Your task to perform on an android device: set an alarm Image 0: 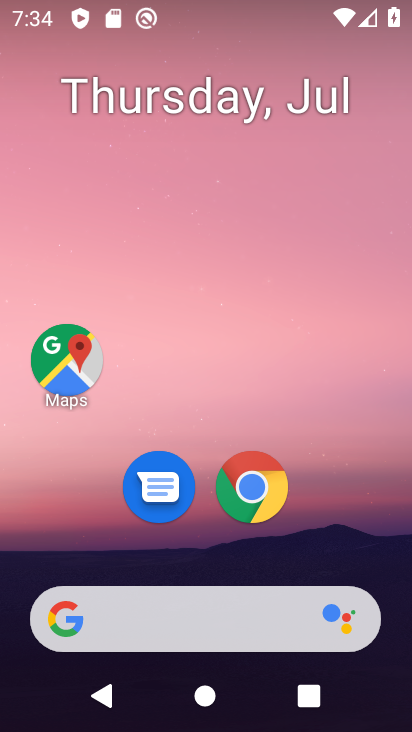
Step 0: drag from (341, 561) to (343, 234)
Your task to perform on an android device: set an alarm Image 1: 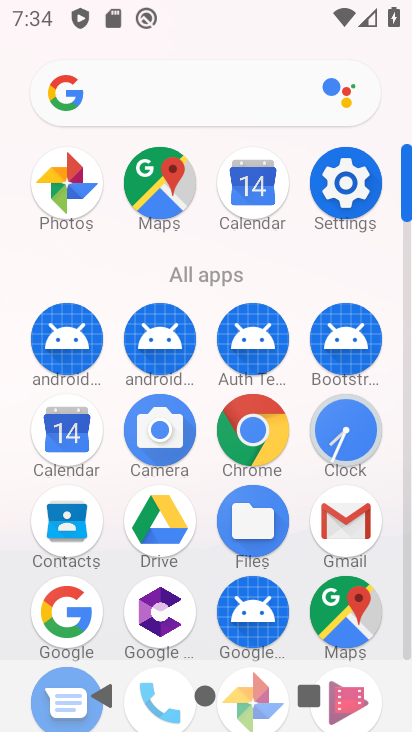
Step 1: click (347, 428)
Your task to perform on an android device: set an alarm Image 2: 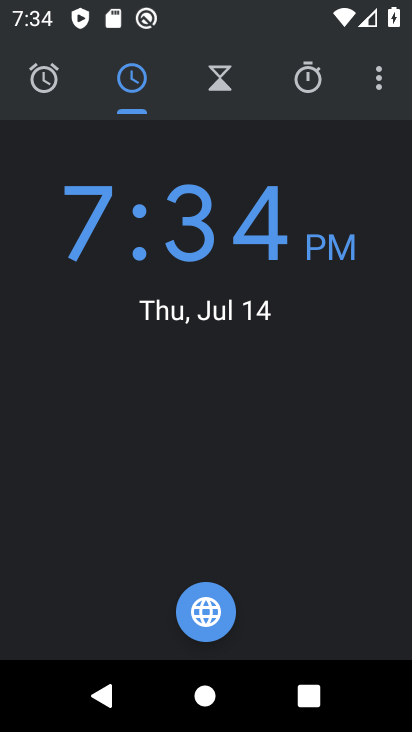
Step 2: click (57, 83)
Your task to perform on an android device: set an alarm Image 3: 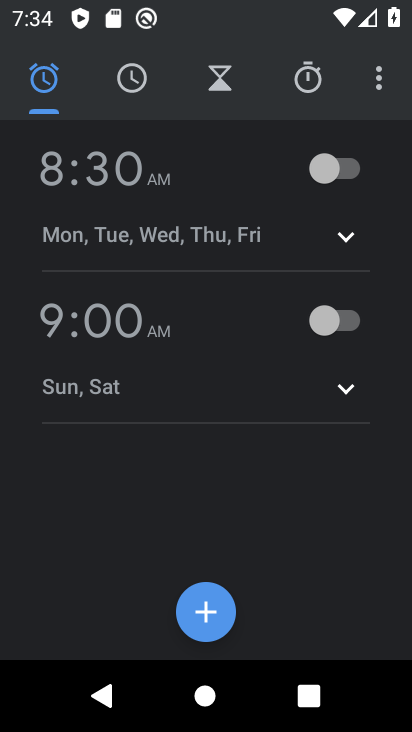
Step 3: click (215, 615)
Your task to perform on an android device: set an alarm Image 4: 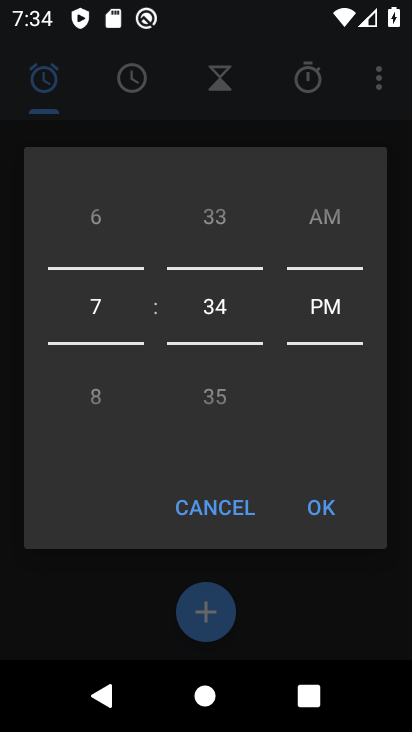
Step 4: click (324, 517)
Your task to perform on an android device: set an alarm Image 5: 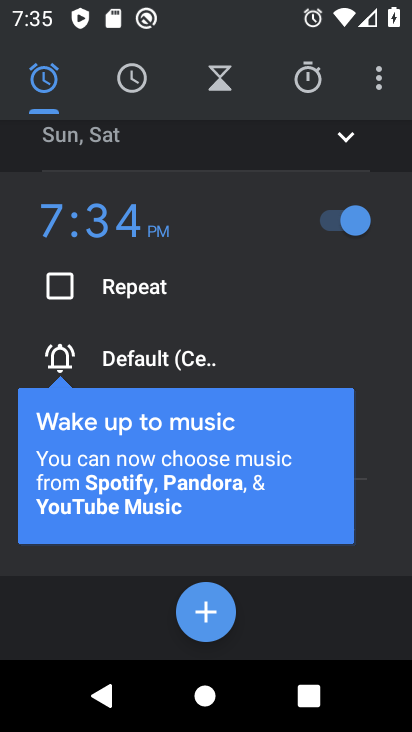
Step 5: task complete